Your task to perform on an android device: Clear the shopping cart on amazon. Add macbook pro 15 inch to the cart on amazon Image 0: 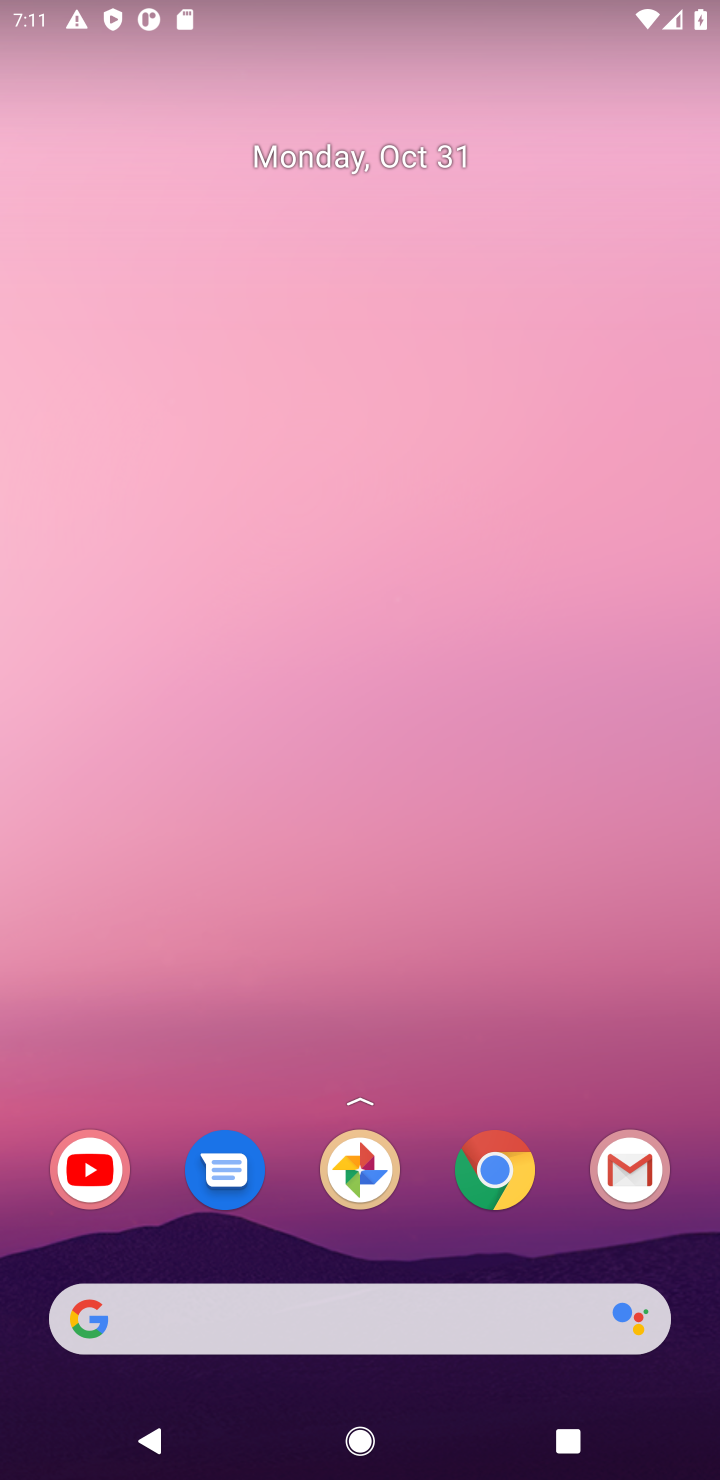
Step 0: click (494, 1182)
Your task to perform on an android device: Clear the shopping cart on amazon. Add macbook pro 15 inch to the cart on amazon Image 1: 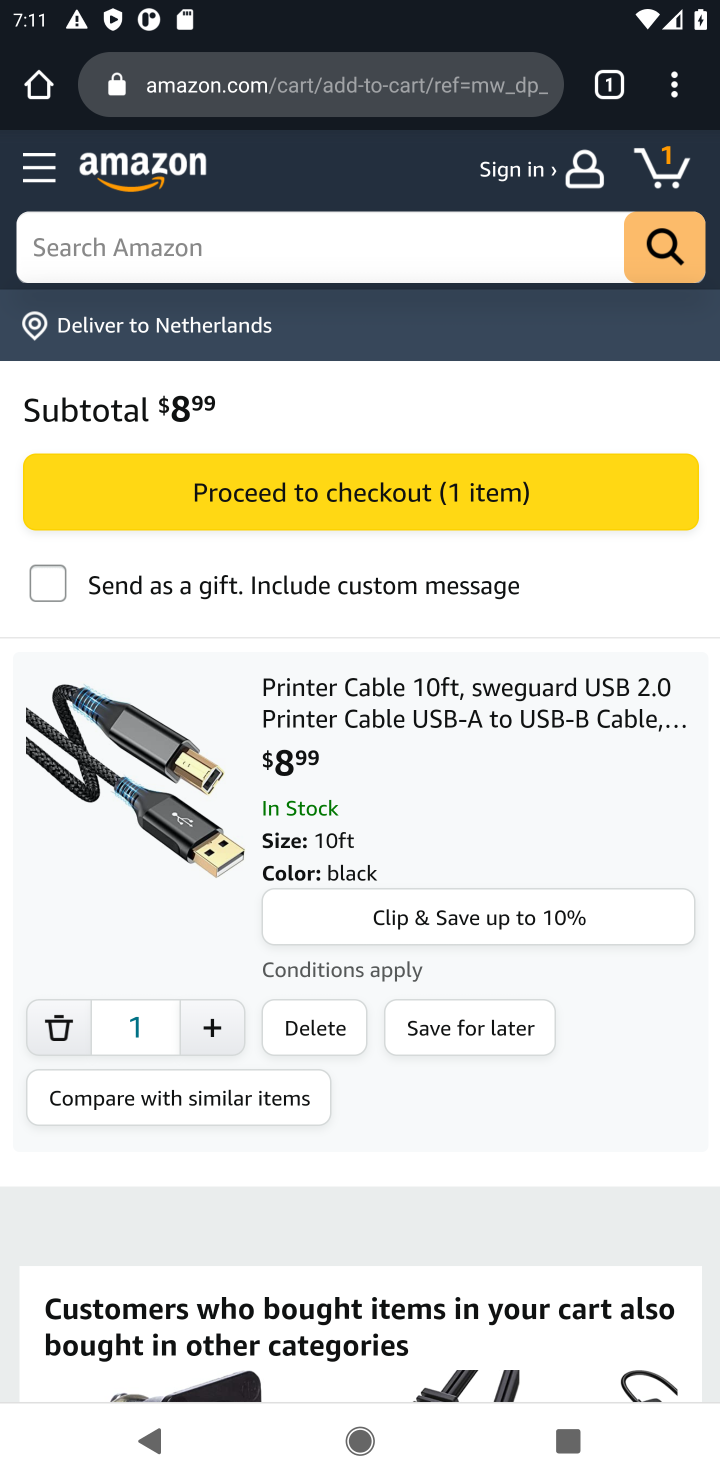
Step 1: click (662, 173)
Your task to perform on an android device: Clear the shopping cart on amazon. Add macbook pro 15 inch to the cart on amazon Image 2: 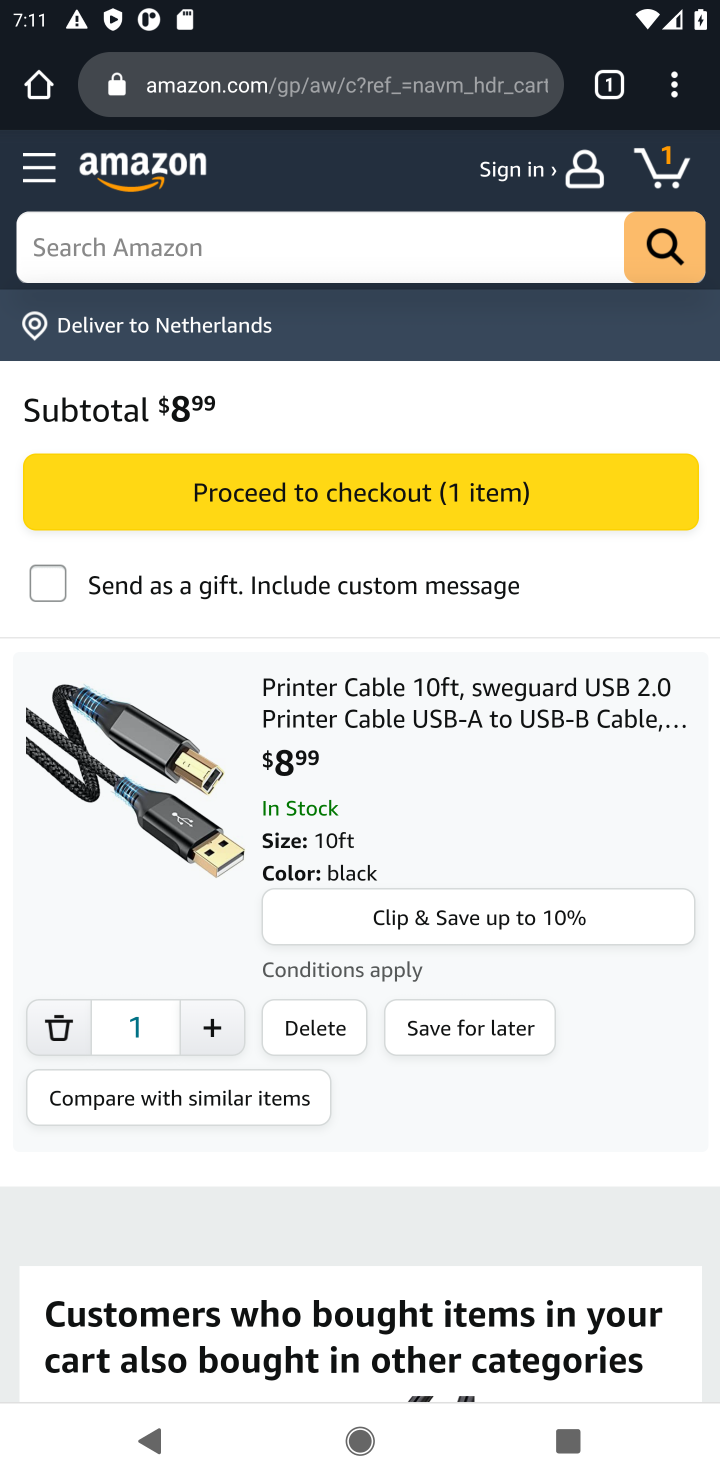
Step 2: click (336, 1031)
Your task to perform on an android device: Clear the shopping cart on amazon. Add macbook pro 15 inch to the cart on amazon Image 3: 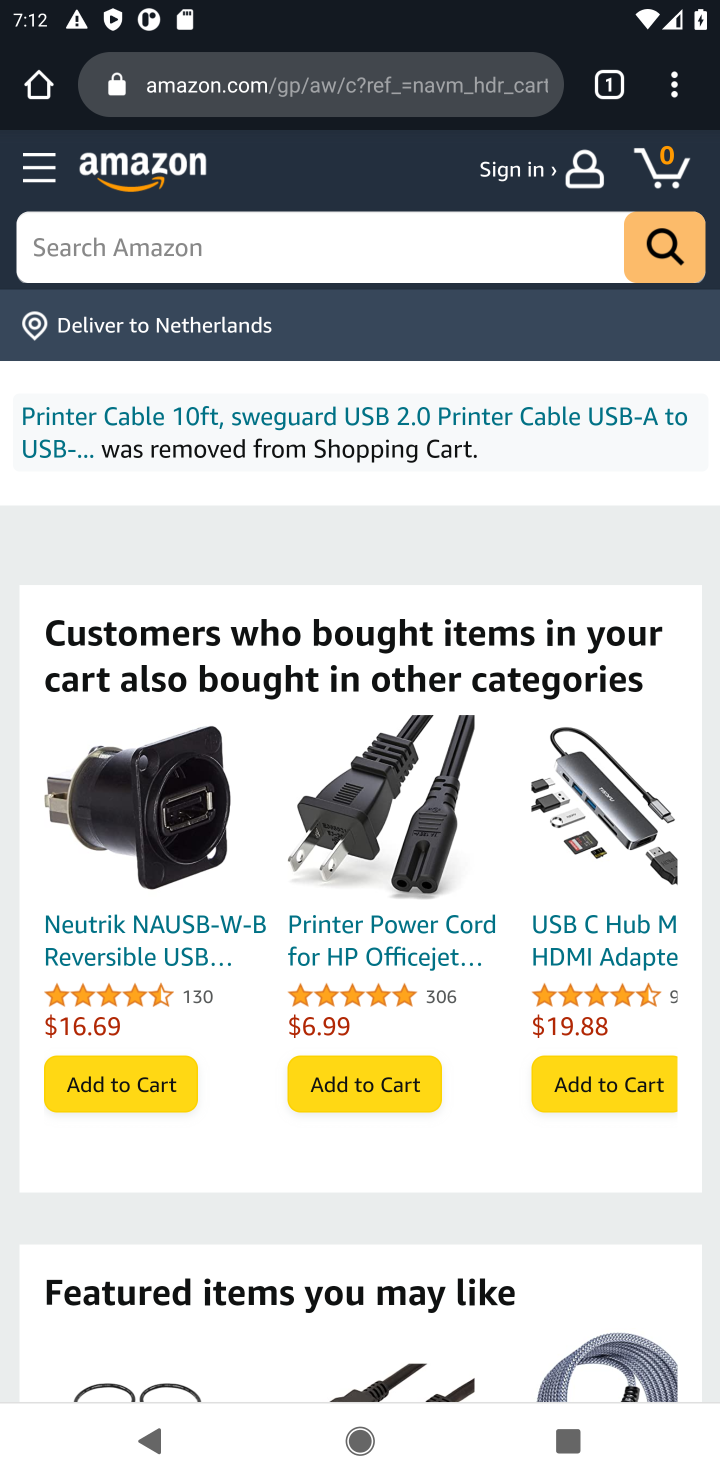
Step 3: click (222, 248)
Your task to perform on an android device: Clear the shopping cart on amazon. Add macbook pro 15 inch to the cart on amazon Image 4: 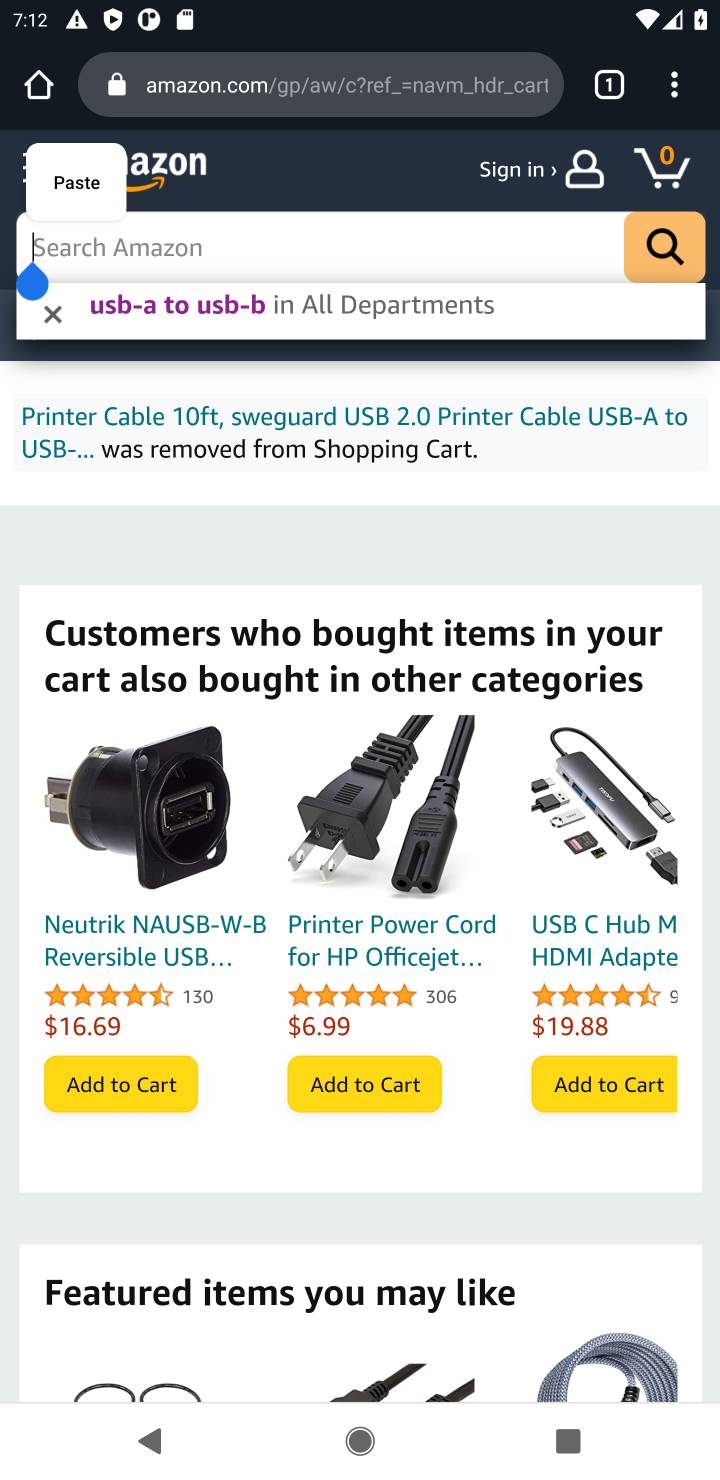
Step 4: type "macbook pro 15 inch"
Your task to perform on an android device: Clear the shopping cart on amazon. Add macbook pro 15 inch to the cart on amazon Image 5: 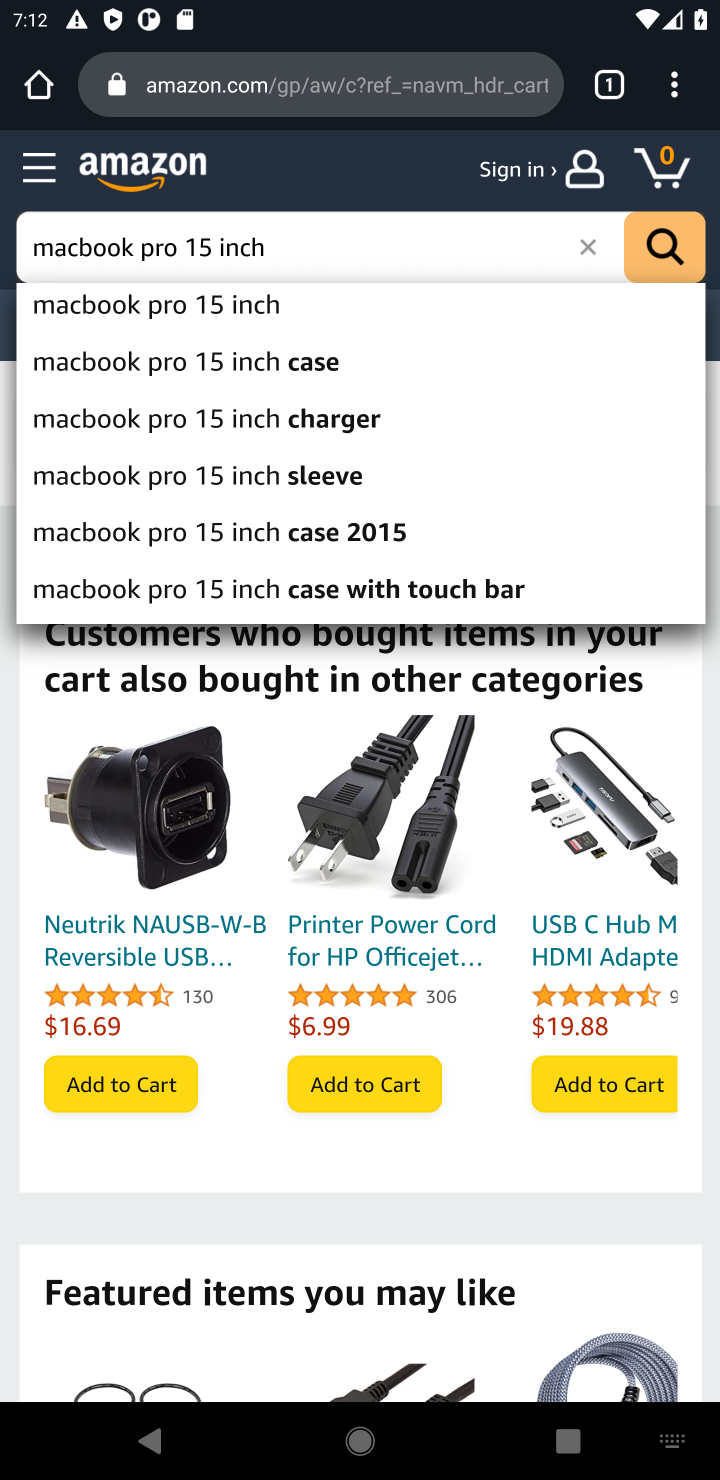
Step 5: press enter
Your task to perform on an android device: Clear the shopping cart on amazon. Add macbook pro 15 inch to the cart on amazon Image 6: 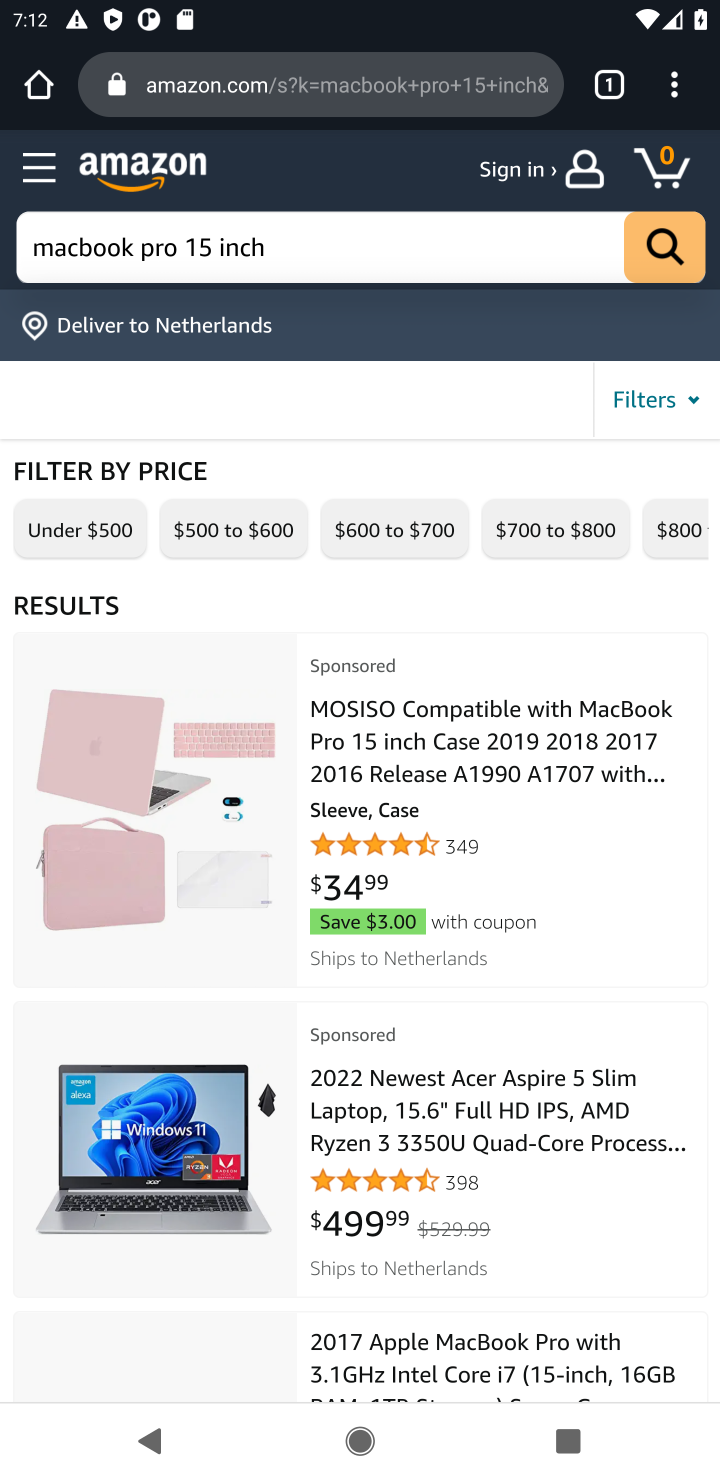
Step 6: click (467, 1352)
Your task to perform on an android device: Clear the shopping cart on amazon. Add macbook pro 15 inch to the cart on amazon Image 7: 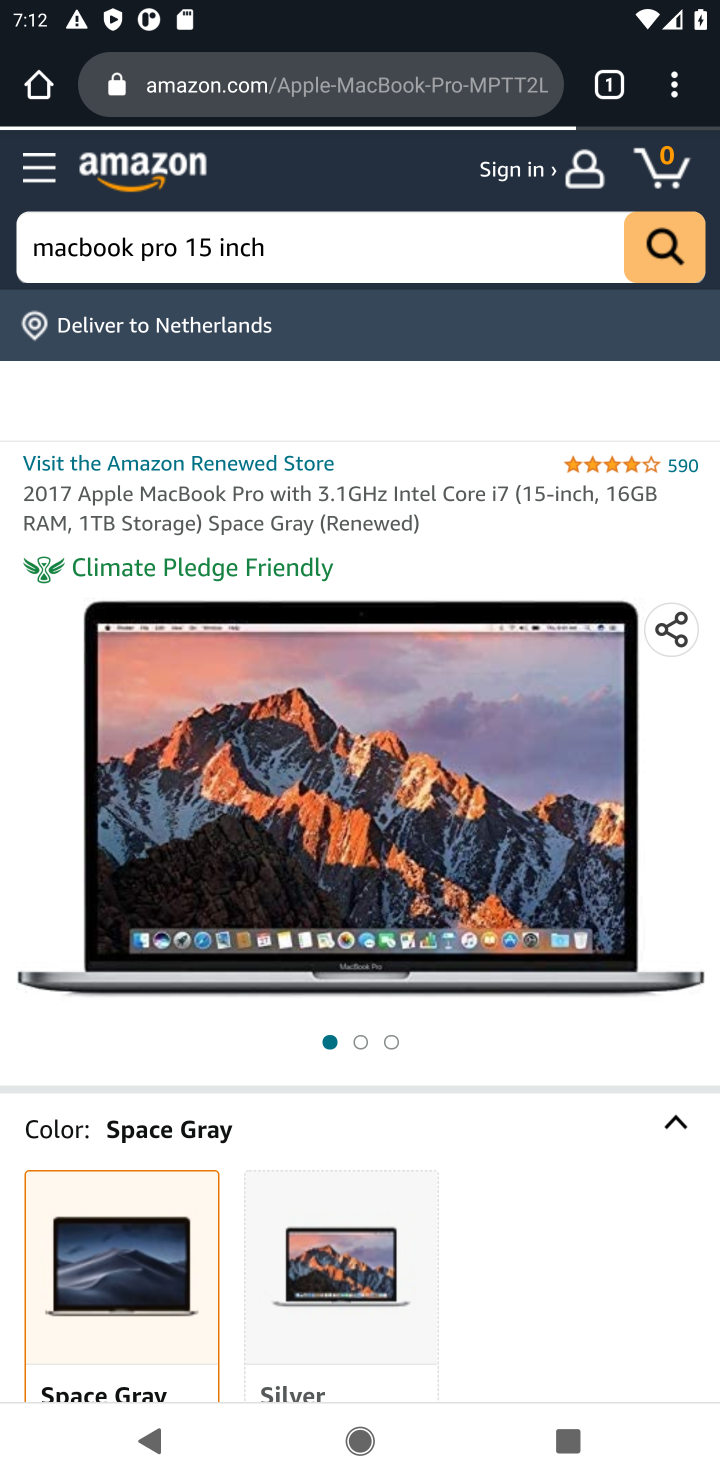
Step 7: drag from (475, 1181) to (572, 222)
Your task to perform on an android device: Clear the shopping cart on amazon. Add macbook pro 15 inch to the cart on amazon Image 8: 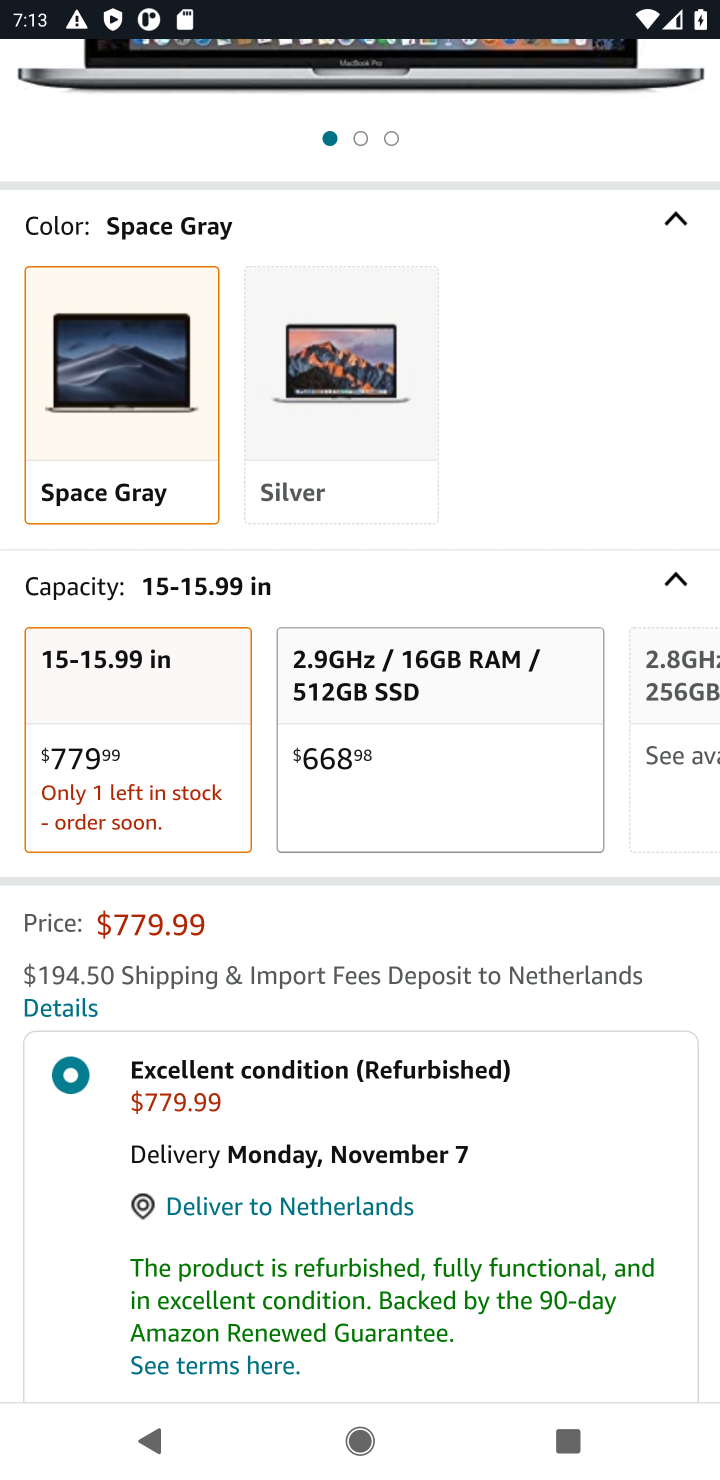
Step 8: drag from (520, 1043) to (495, 596)
Your task to perform on an android device: Clear the shopping cart on amazon. Add macbook pro 15 inch to the cart on amazon Image 9: 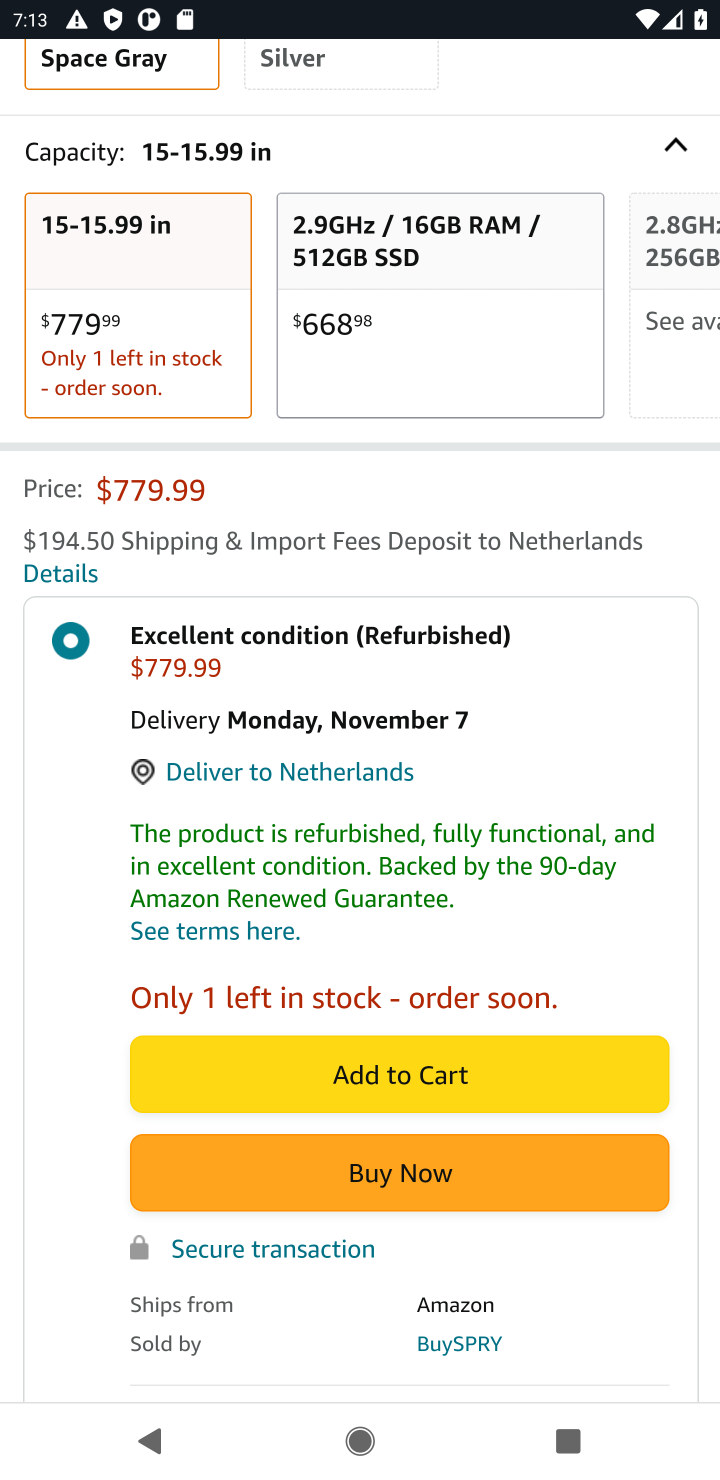
Step 9: click (436, 1085)
Your task to perform on an android device: Clear the shopping cart on amazon. Add macbook pro 15 inch to the cart on amazon Image 10: 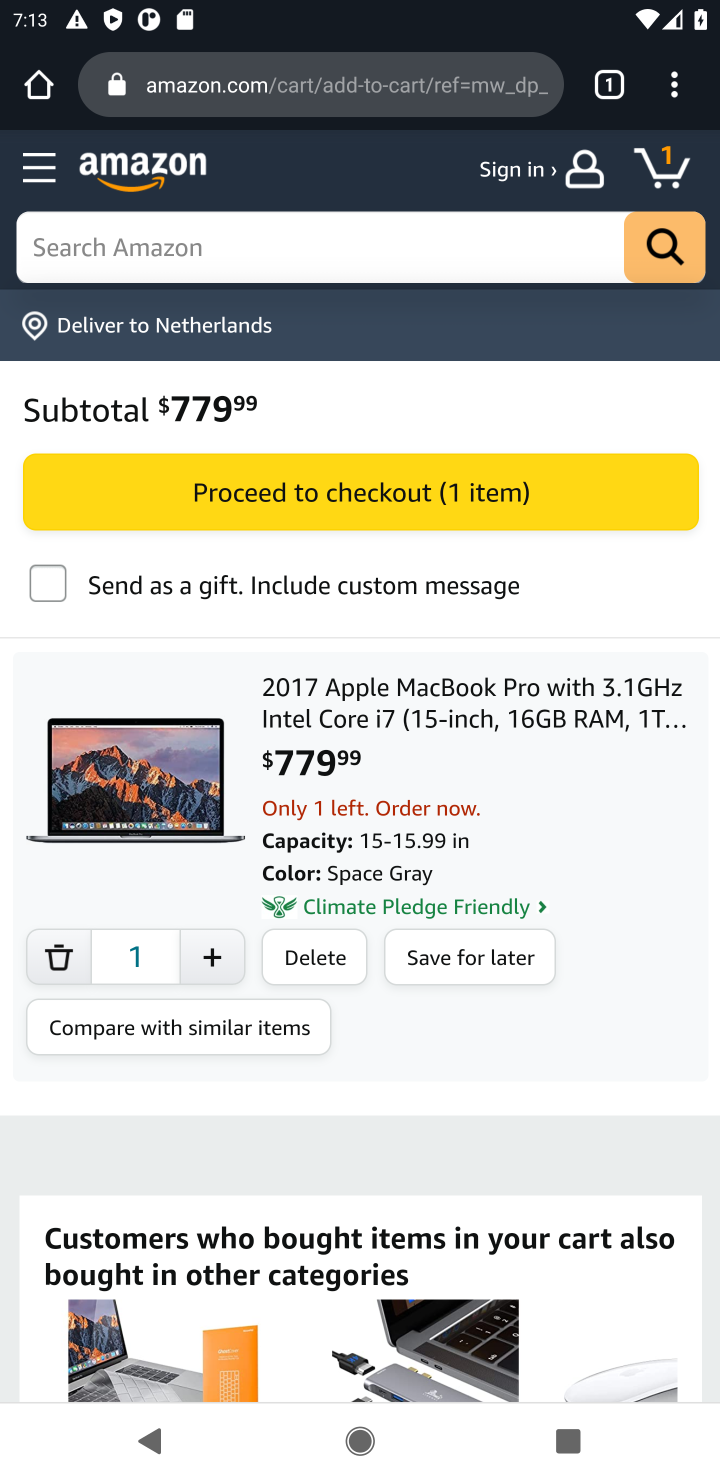
Step 10: task complete